Your task to perform on an android device: all mails in gmail Image 0: 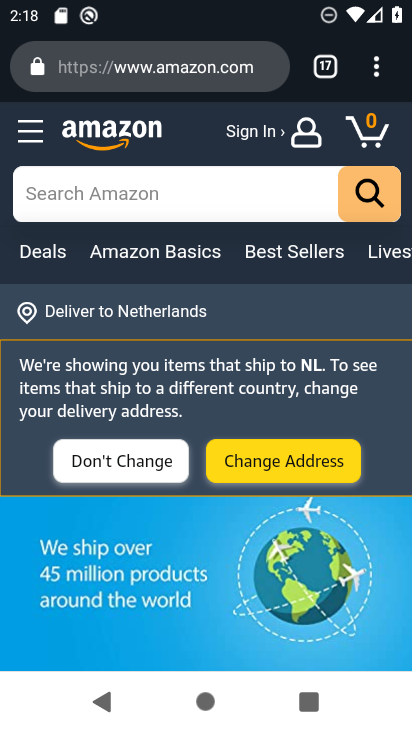
Step 0: press home button
Your task to perform on an android device: all mails in gmail Image 1: 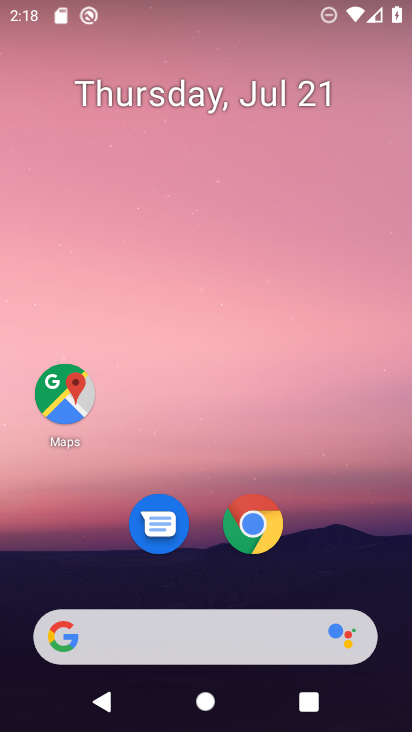
Step 1: drag from (190, 612) to (153, 118)
Your task to perform on an android device: all mails in gmail Image 2: 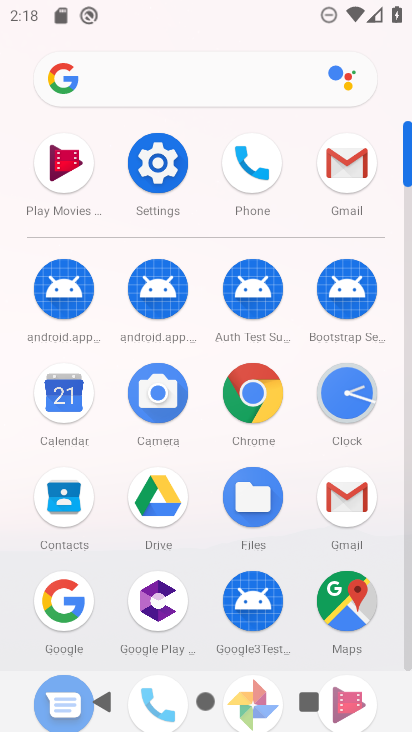
Step 2: click (348, 506)
Your task to perform on an android device: all mails in gmail Image 3: 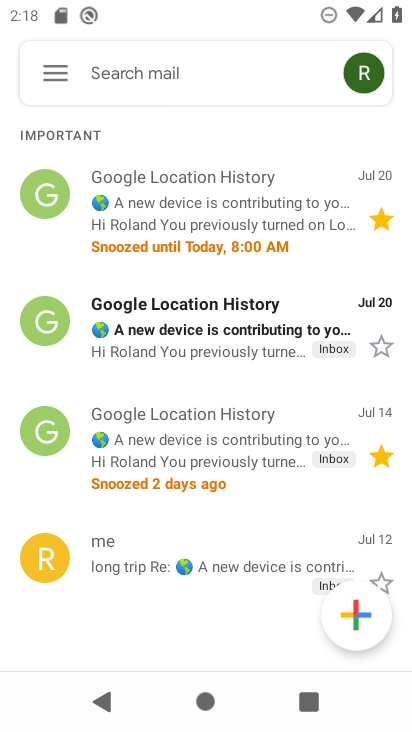
Step 3: click (50, 68)
Your task to perform on an android device: all mails in gmail Image 4: 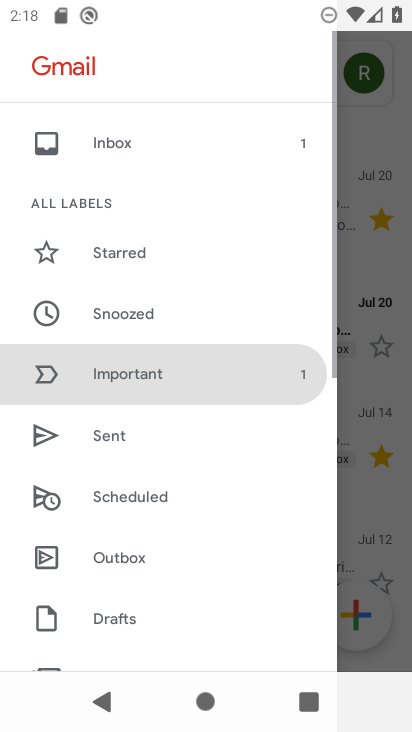
Step 4: drag from (180, 560) to (181, 97)
Your task to perform on an android device: all mails in gmail Image 5: 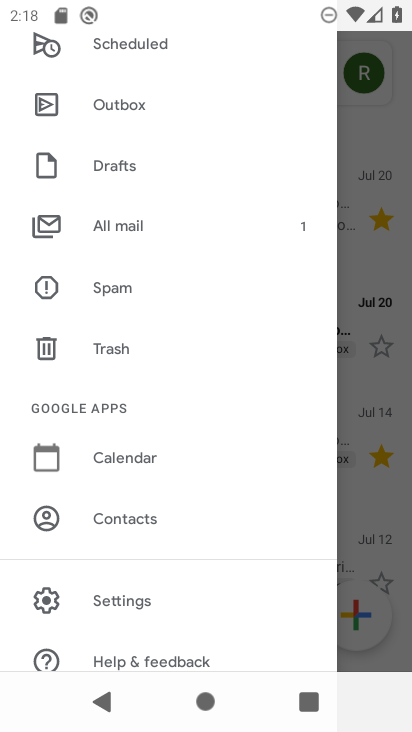
Step 5: click (111, 231)
Your task to perform on an android device: all mails in gmail Image 6: 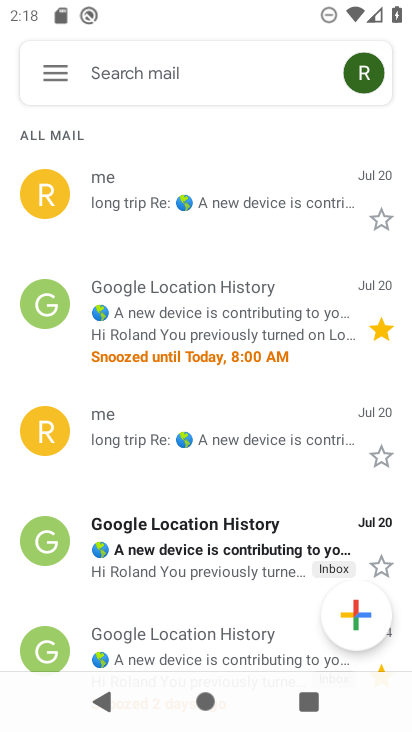
Step 6: task complete